Your task to perform on an android device: Open the calendar and show me this week's events? Image 0: 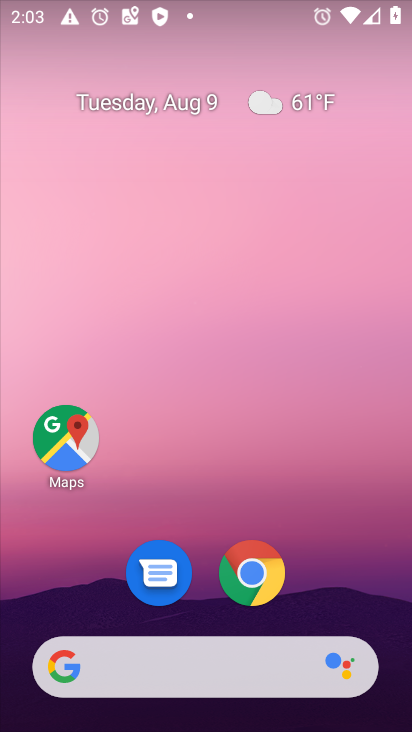
Step 0: press home button
Your task to perform on an android device: Open the calendar and show me this week's events? Image 1: 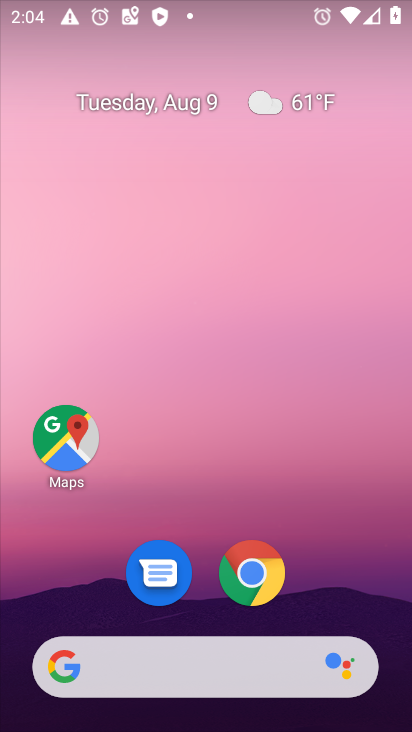
Step 1: drag from (55, 577) to (231, 54)
Your task to perform on an android device: Open the calendar and show me this week's events? Image 2: 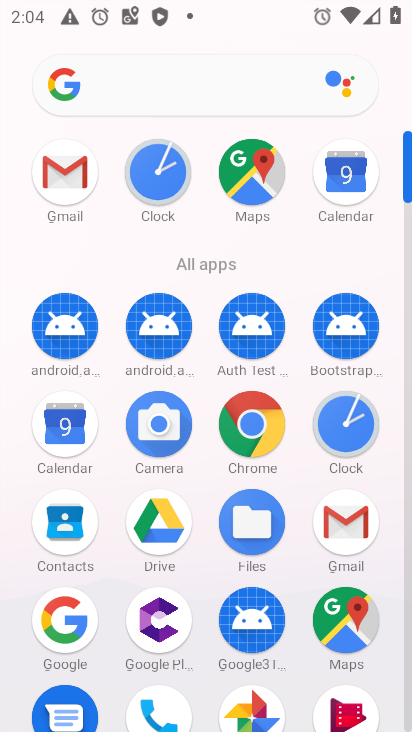
Step 2: click (338, 179)
Your task to perform on an android device: Open the calendar and show me this week's events? Image 3: 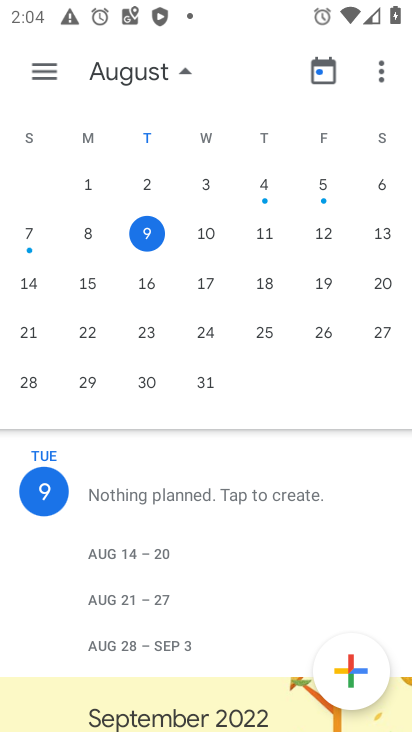
Step 3: click (208, 228)
Your task to perform on an android device: Open the calendar and show me this week's events? Image 4: 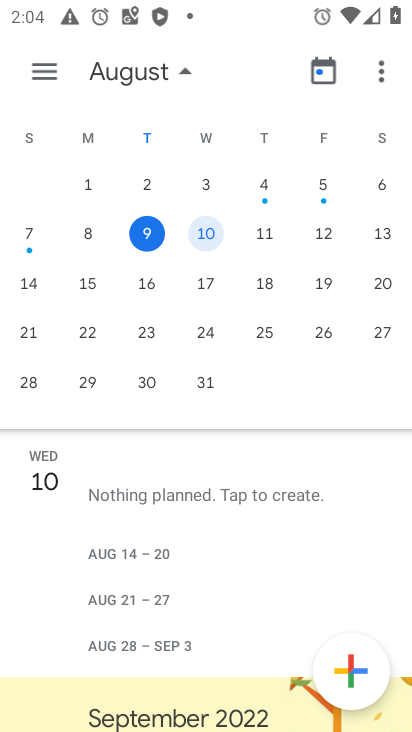
Step 4: click (267, 243)
Your task to perform on an android device: Open the calendar and show me this week's events? Image 5: 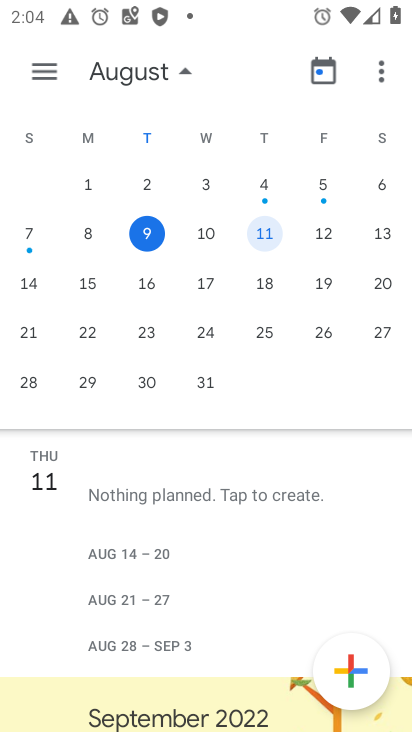
Step 5: click (339, 230)
Your task to perform on an android device: Open the calendar and show me this week's events? Image 6: 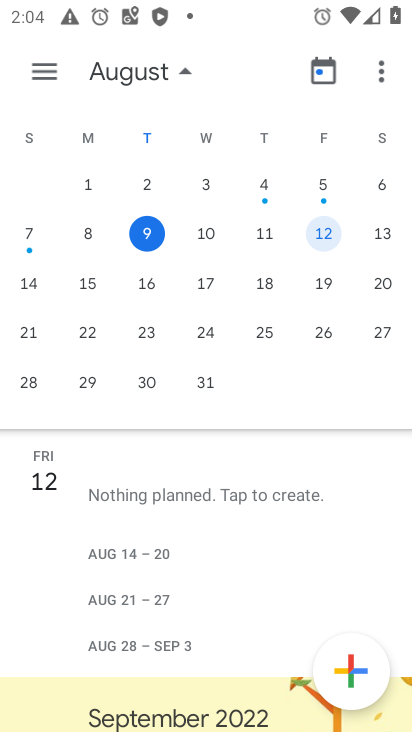
Step 6: task complete